Your task to perform on an android device: toggle pop-ups in chrome Image 0: 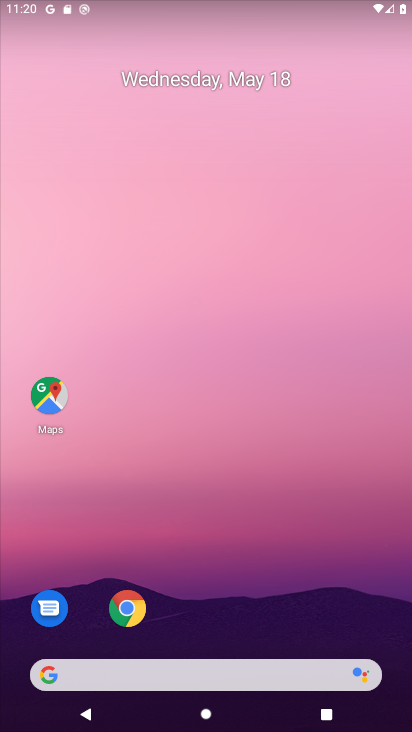
Step 0: click (144, 618)
Your task to perform on an android device: toggle pop-ups in chrome Image 1: 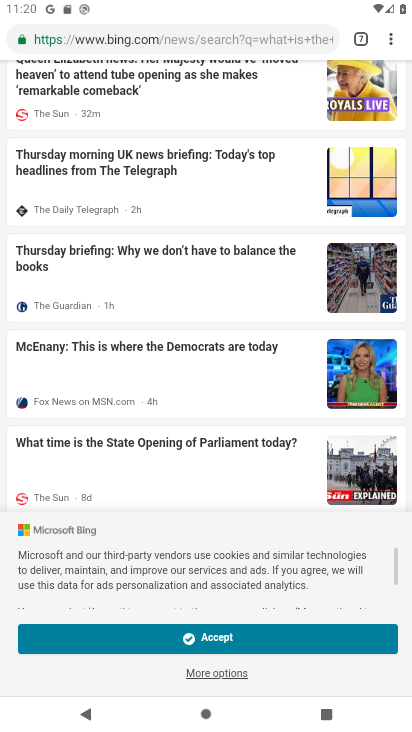
Step 1: click (390, 41)
Your task to perform on an android device: toggle pop-ups in chrome Image 2: 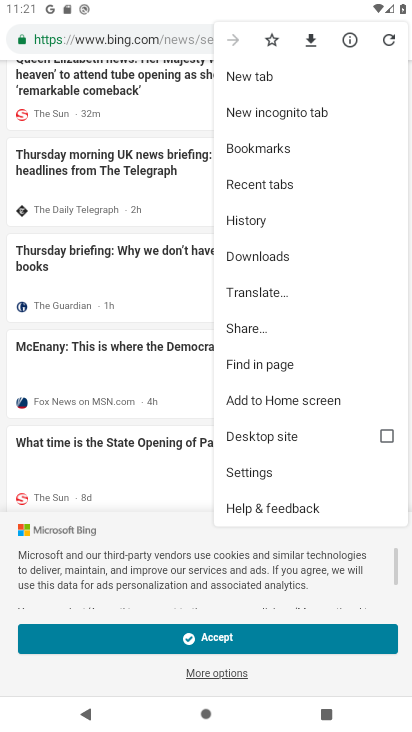
Step 2: click (267, 471)
Your task to perform on an android device: toggle pop-ups in chrome Image 3: 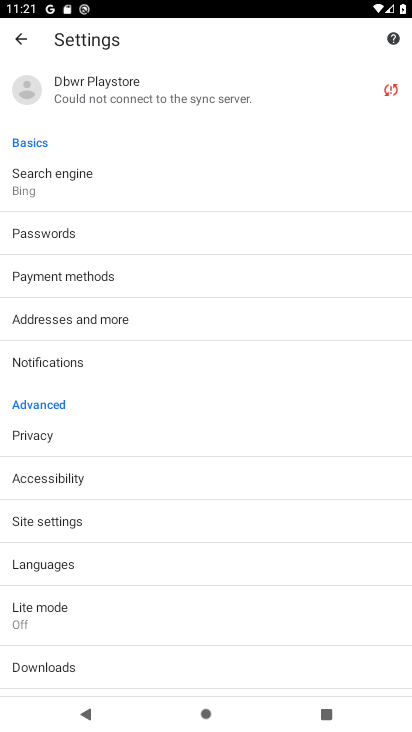
Step 3: click (63, 523)
Your task to perform on an android device: toggle pop-ups in chrome Image 4: 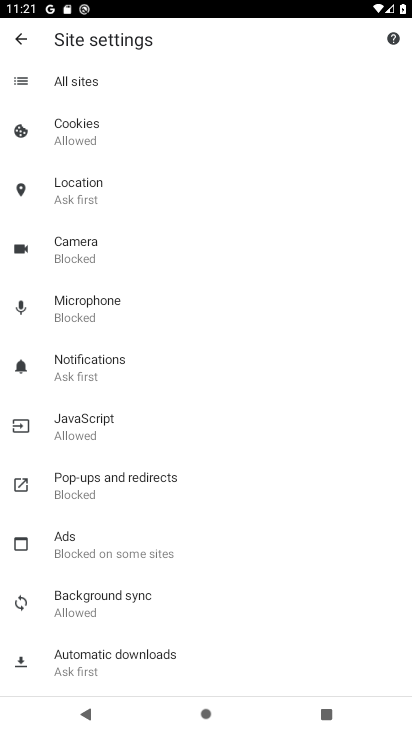
Step 4: click (146, 484)
Your task to perform on an android device: toggle pop-ups in chrome Image 5: 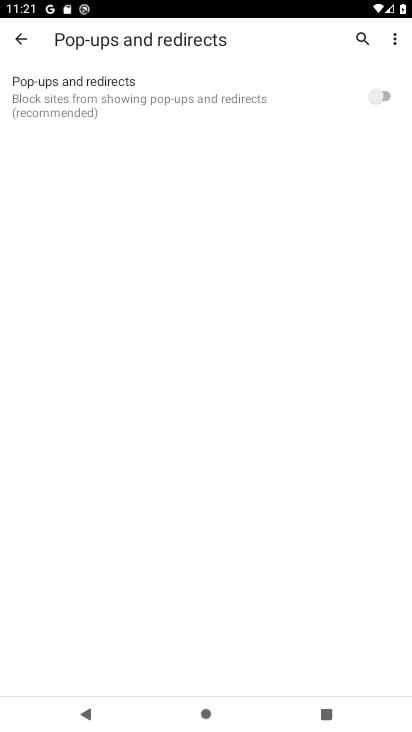
Step 5: click (383, 96)
Your task to perform on an android device: toggle pop-ups in chrome Image 6: 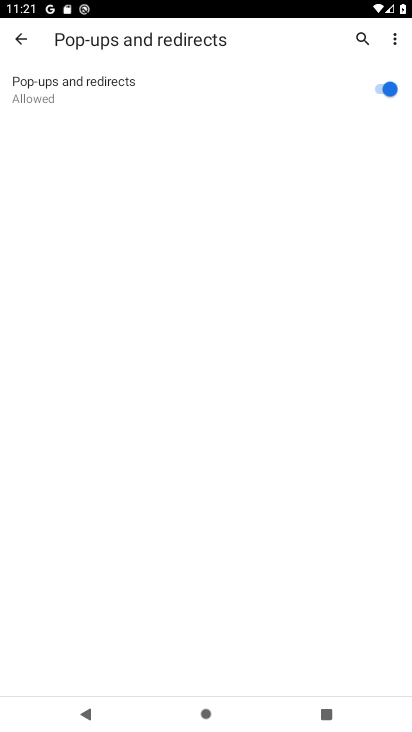
Step 6: task complete